Your task to perform on an android device: change the clock display to analog Image 0: 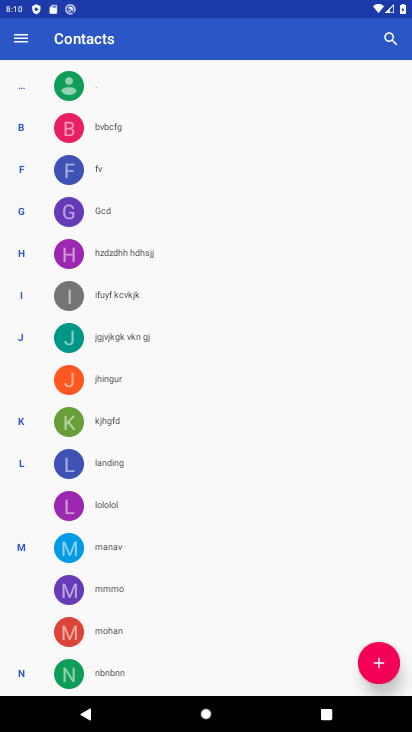
Step 0: press home button
Your task to perform on an android device: change the clock display to analog Image 1: 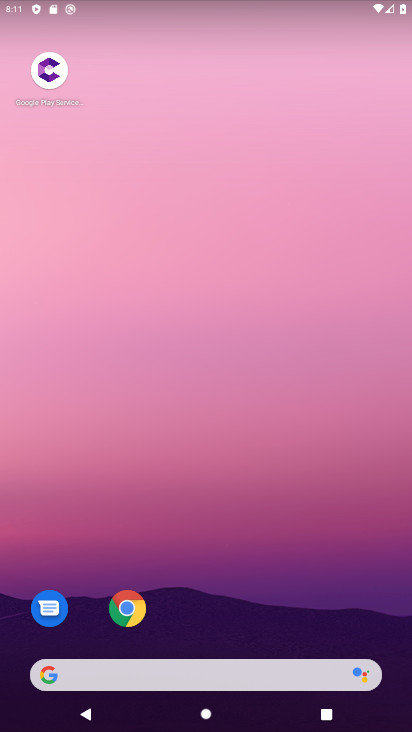
Step 1: drag from (215, 662) to (342, 9)
Your task to perform on an android device: change the clock display to analog Image 2: 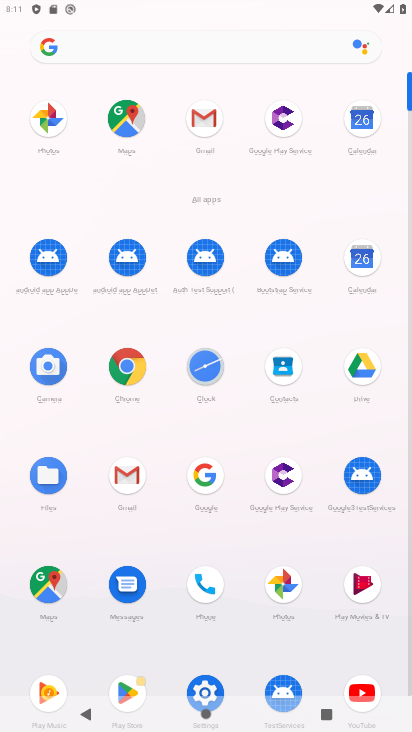
Step 2: click (202, 369)
Your task to perform on an android device: change the clock display to analog Image 3: 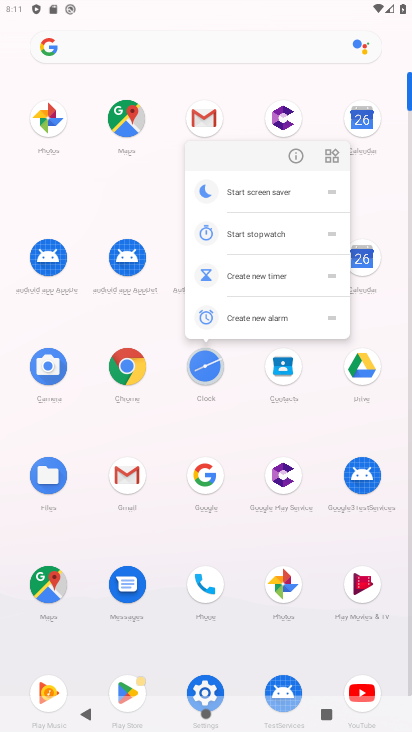
Step 3: click (202, 370)
Your task to perform on an android device: change the clock display to analog Image 4: 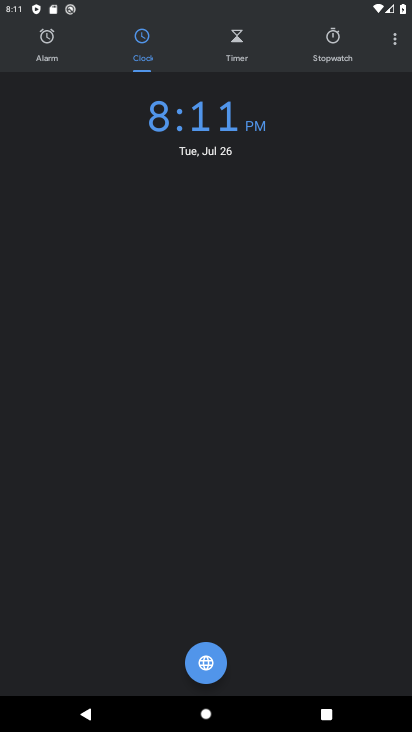
Step 4: click (395, 46)
Your task to perform on an android device: change the clock display to analog Image 5: 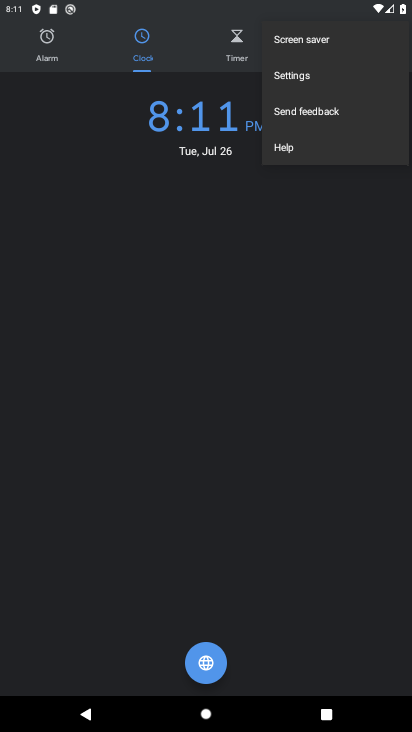
Step 5: click (297, 79)
Your task to perform on an android device: change the clock display to analog Image 6: 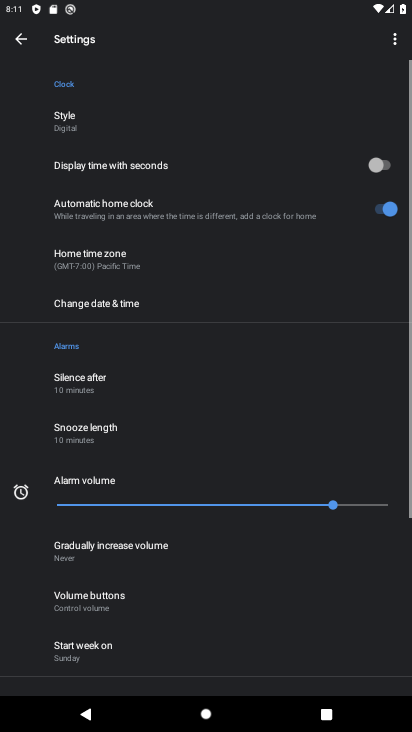
Step 6: click (84, 126)
Your task to perform on an android device: change the clock display to analog Image 7: 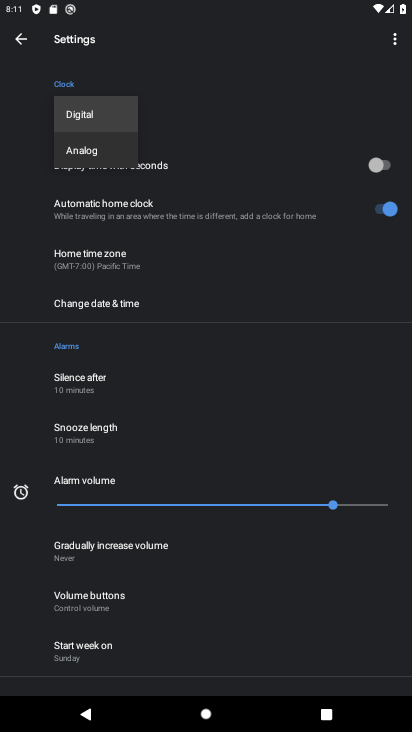
Step 7: click (71, 151)
Your task to perform on an android device: change the clock display to analog Image 8: 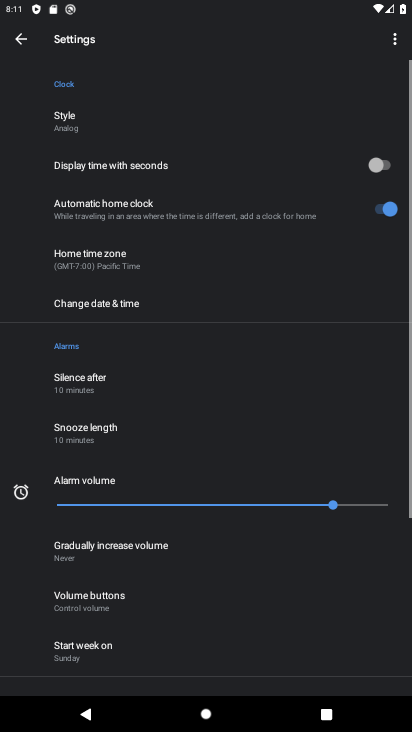
Step 8: task complete